Your task to perform on an android device: turn off smart reply in the gmail app Image 0: 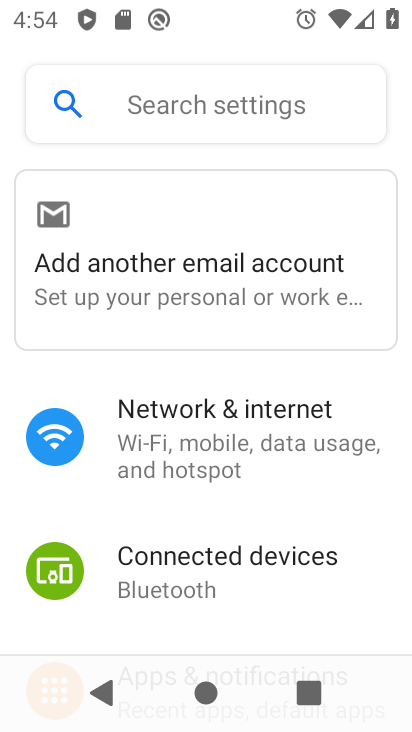
Step 0: press home button
Your task to perform on an android device: turn off smart reply in the gmail app Image 1: 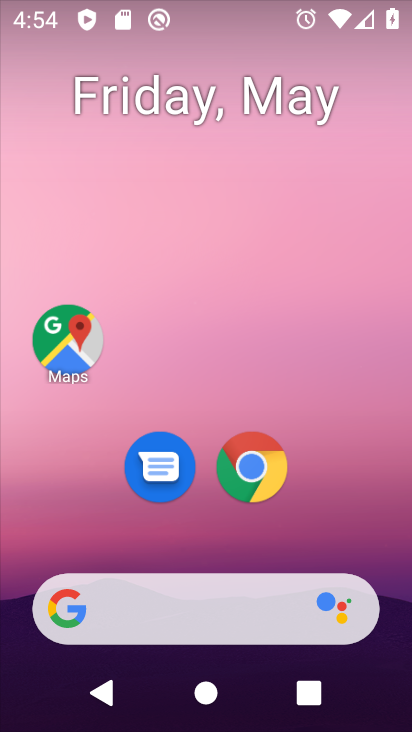
Step 1: drag from (327, 464) to (407, 92)
Your task to perform on an android device: turn off smart reply in the gmail app Image 2: 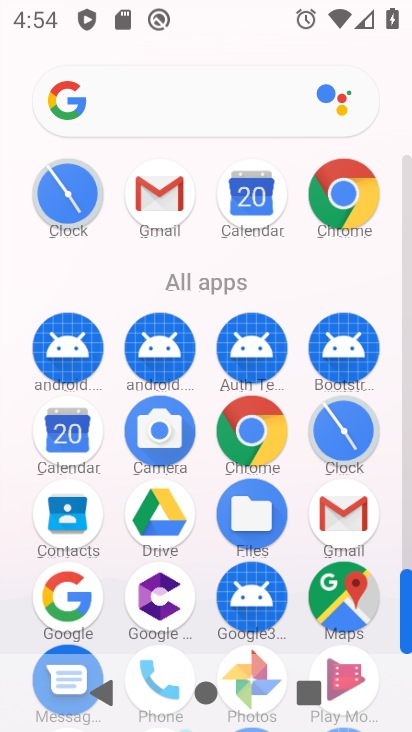
Step 2: click (165, 194)
Your task to perform on an android device: turn off smart reply in the gmail app Image 3: 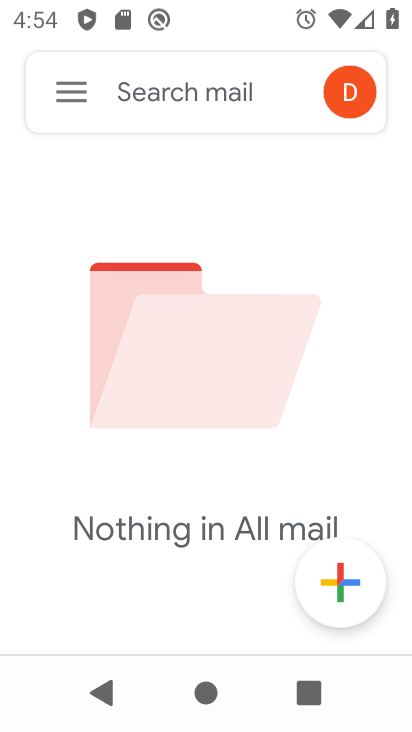
Step 3: click (55, 80)
Your task to perform on an android device: turn off smart reply in the gmail app Image 4: 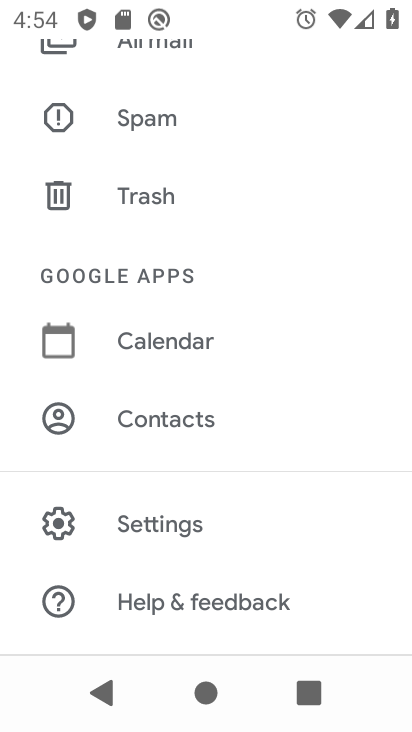
Step 4: click (131, 541)
Your task to perform on an android device: turn off smart reply in the gmail app Image 5: 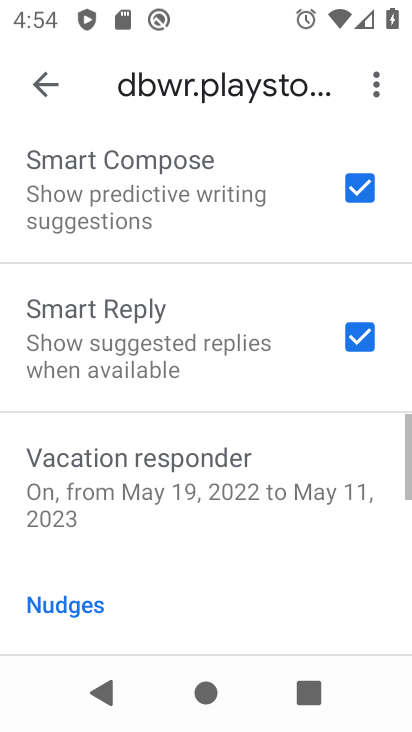
Step 5: drag from (202, 503) to (334, 122)
Your task to perform on an android device: turn off smart reply in the gmail app Image 6: 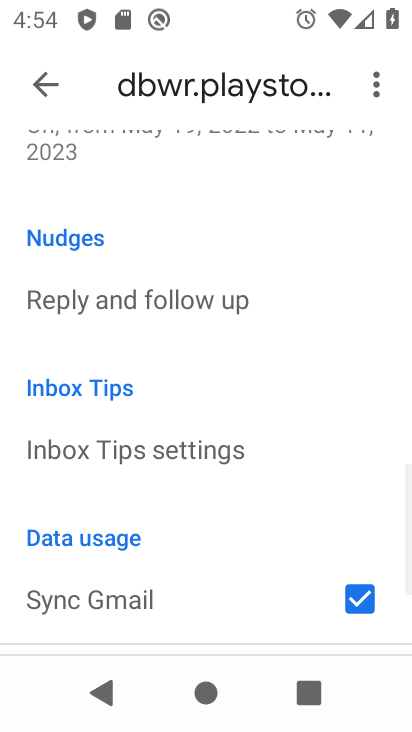
Step 6: drag from (253, 222) to (206, 612)
Your task to perform on an android device: turn off smart reply in the gmail app Image 7: 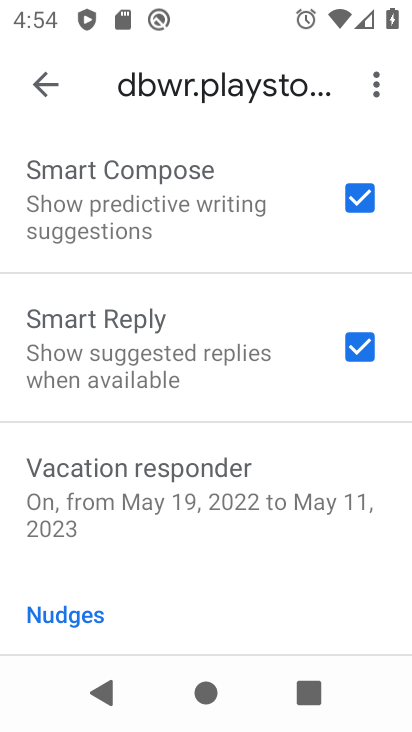
Step 7: click (358, 350)
Your task to perform on an android device: turn off smart reply in the gmail app Image 8: 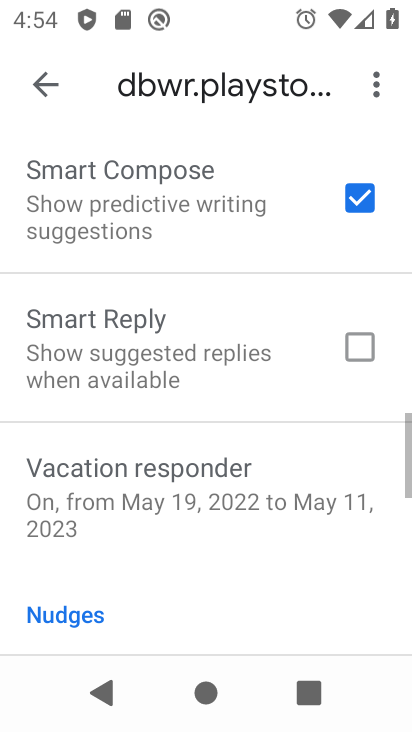
Step 8: task complete